Your task to perform on an android device: Open the calendar and show me this week's events Image 0: 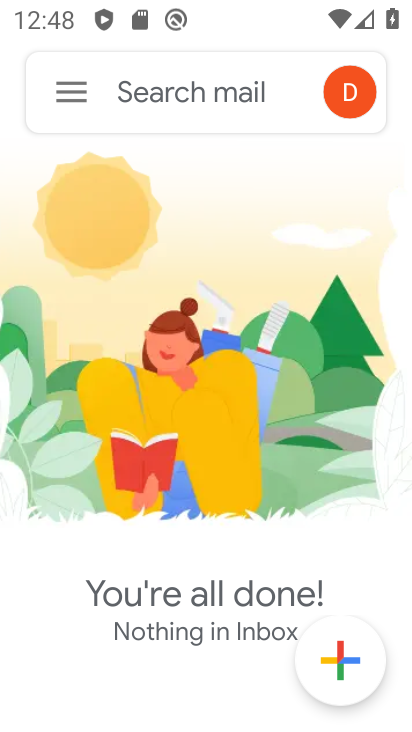
Step 0: press home button
Your task to perform on an android device: Open the calendar and show me this week's events Image 1: 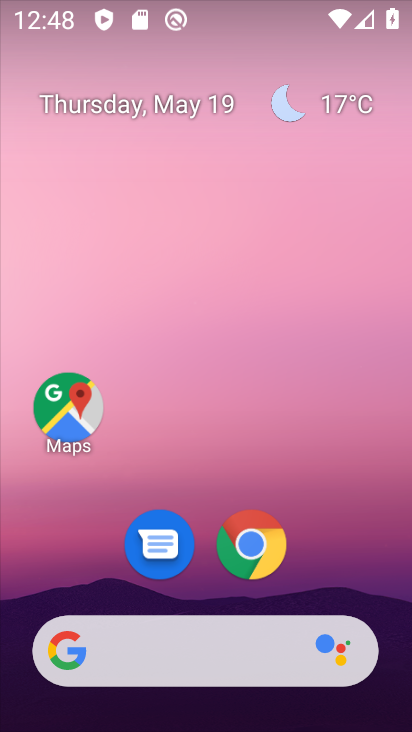
Step 1: drag from (202, 729) to (228, 314)
Your task to perform on an android device: Open the calendar and show me this week's events Image 2: 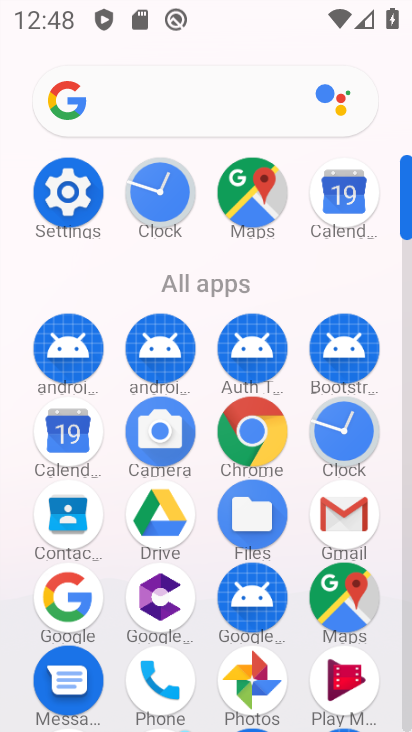
Step 2: click (67, 434)
Your task to perform on an android device: Open the calendar and show me this week's events Image 3: 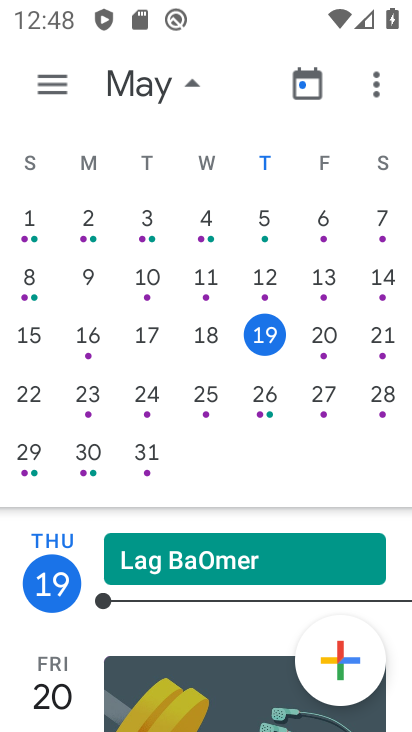
Step 3: click (48, 89)
Your task to perform on an android device: Open the calendar and show me this week's events Image 4: 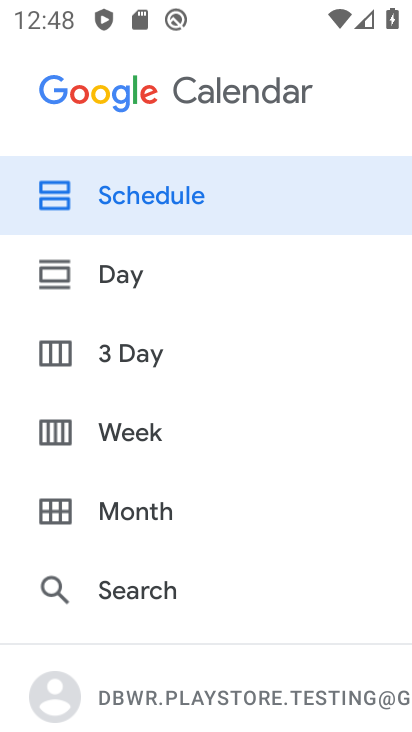
Step 4: drag from (130, 608) to (141, 253)
Your task to perform on an android device: Open the calendar and show me this week's events Image 5: 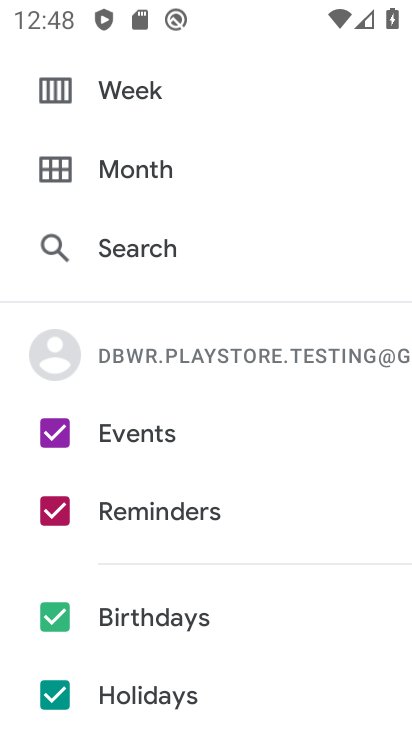
Step 5: click (61, 695)
Your task to perform on an android device: Open the calendar and show me this week's events Image 6: 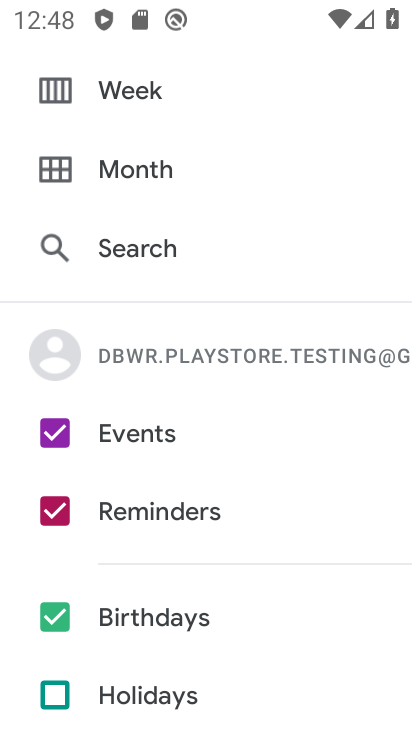
Step 6: drag from (266, 675) to (271, 568)
Your task to perform on an android device: Open the calendar and show me this week's events Image 7: 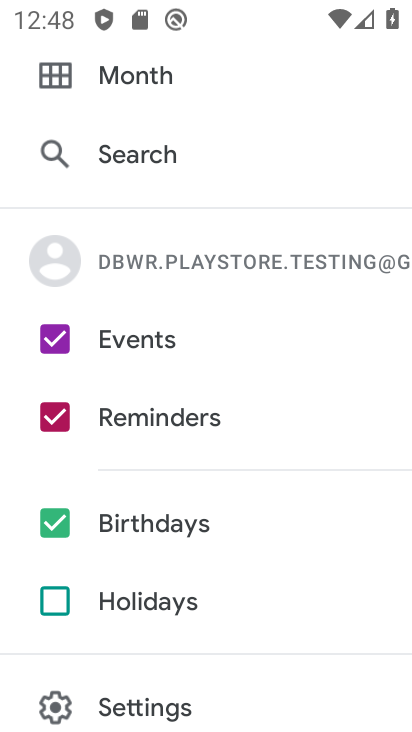
Step 7: click (58, 516)
Your task to perform on an android device: Open the calendar and show me this week's events Image 8: 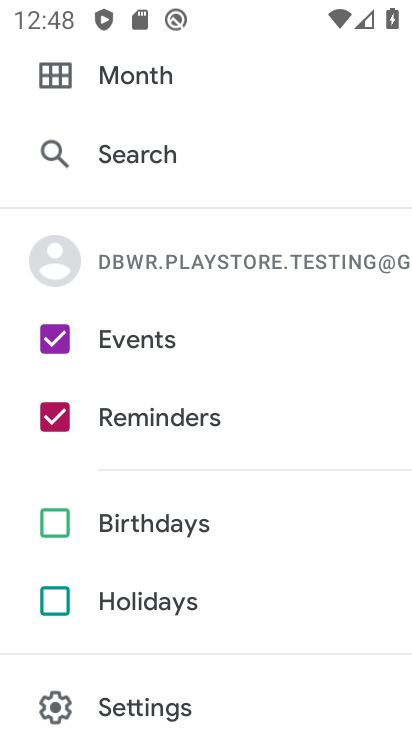
Step 8: click (57, 419)
Your task to perform on an android device: Open the calendar and show me this week's events Image 9: 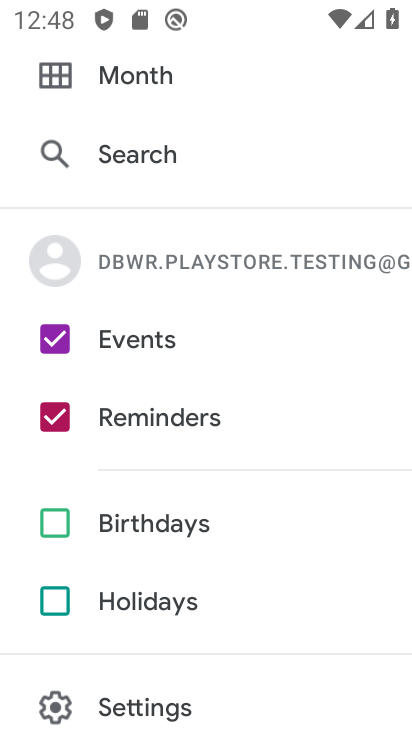
Step 9: click (60, 415)
Your task to perform on an android device: Open the calendar and show me this week's events Image 10: 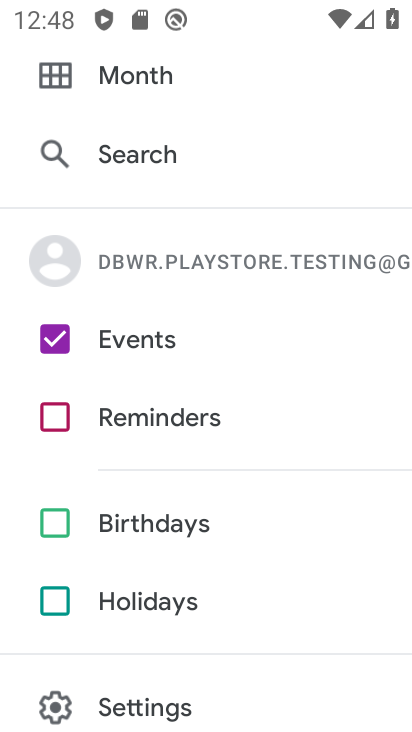
Step 10: drag from (265, 218) to (309, 536)
Your task to perform on an android device: Open the calendar and show me this week's events Image 11: 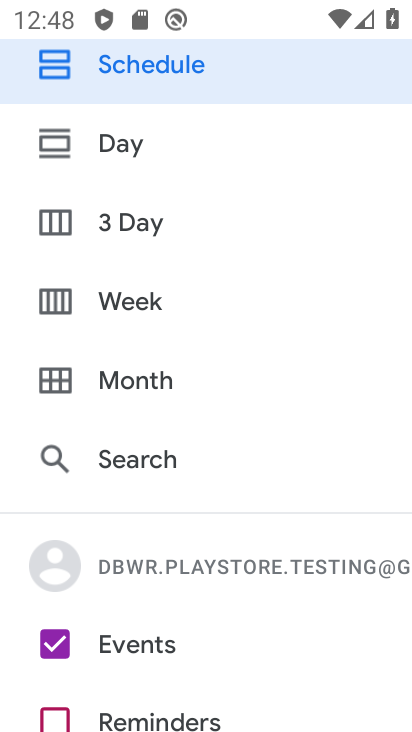
Step 11: click (140, 302)
Your task to perform on an android device: Open the calendar and show me this week's events Image 12: 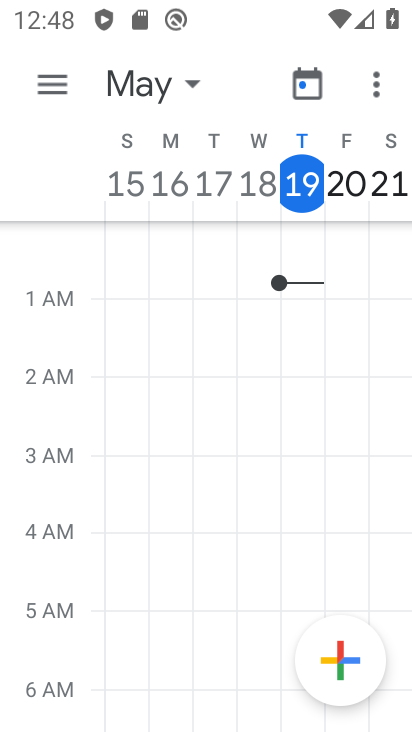
Step 12: click (189, 82)
Your task to perform on an android device: Open the calendar and show me this week's events Image 13: 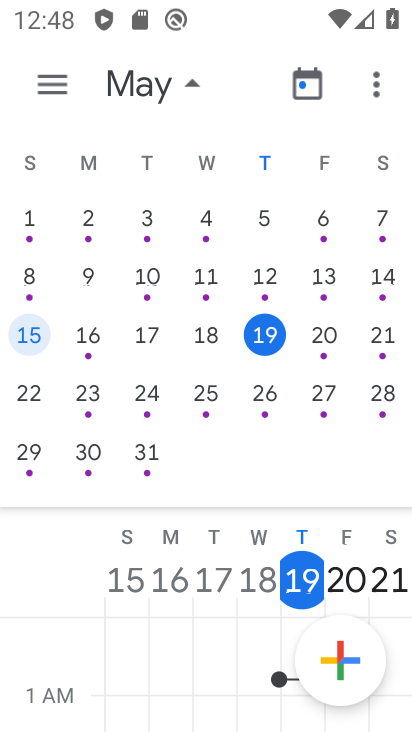
Step 13: task complete